Your task to perform on an android device: Go to ESPN.com Image 0: 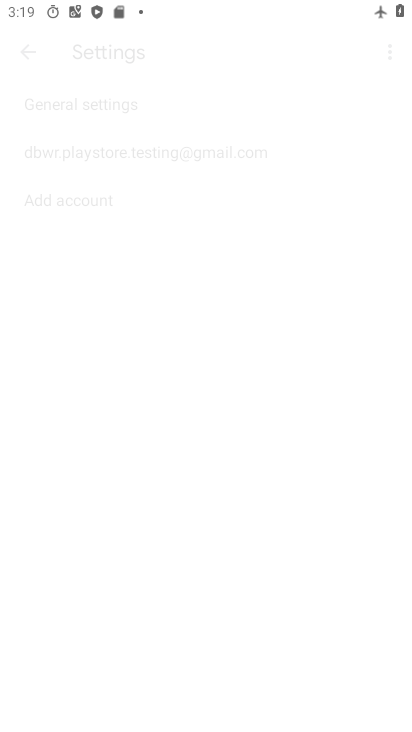
Step 0: drag from (339, 572) to (352, 82)
Your task to perform on an android device: Go to ESPN.com Image 1: 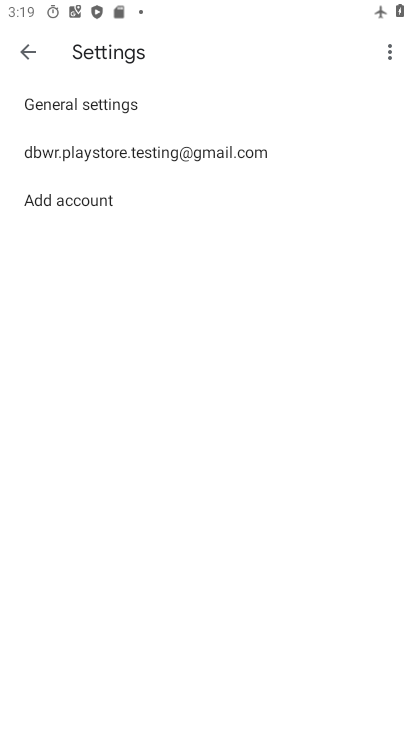
Step 1: press home button
Your task to perform on an android device: Go to ESPN.com Image 2: 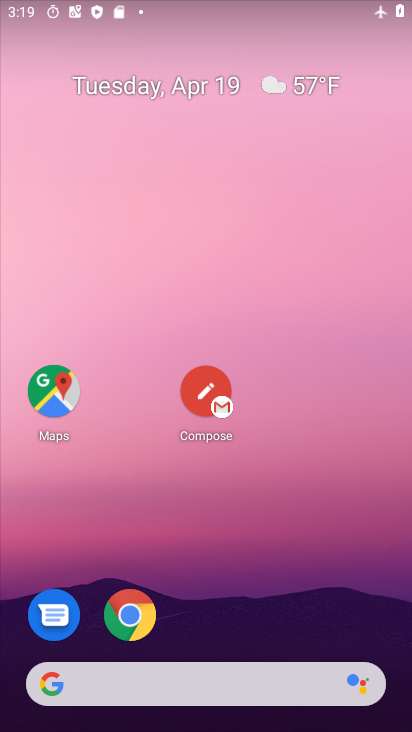
Step 2: drag from (278, 623) to (297, 208)
Your task to perform on an android device: Go to ESPN.com Image 3: 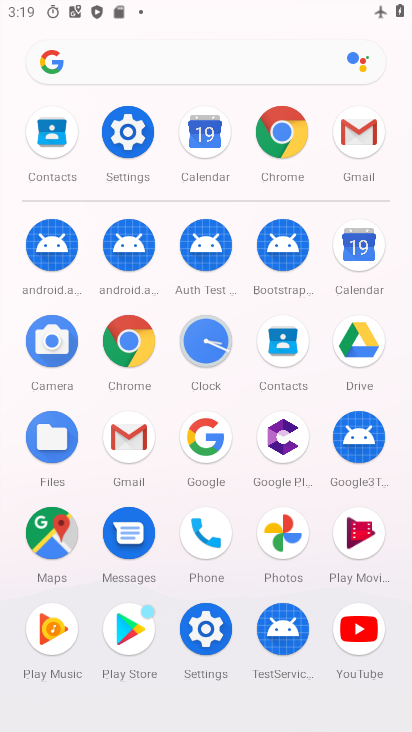
Step 3: click (126, 341)
Your task to perform on an android device: Go to ESPN.com Image 4: 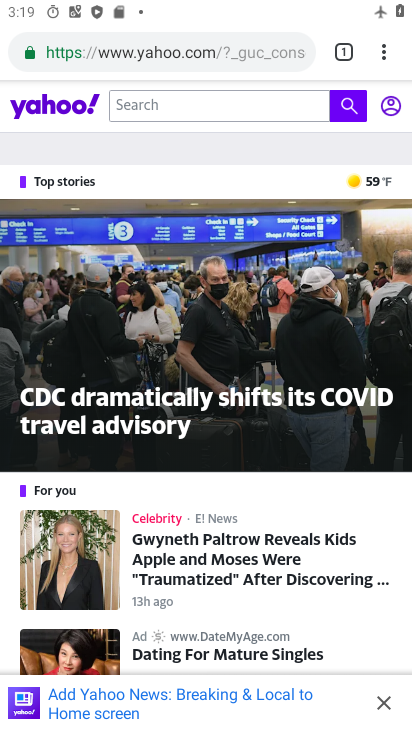
Step 4: click (217, 51)
Your task to perform on an android device: Go to ESPN.com Image 5: 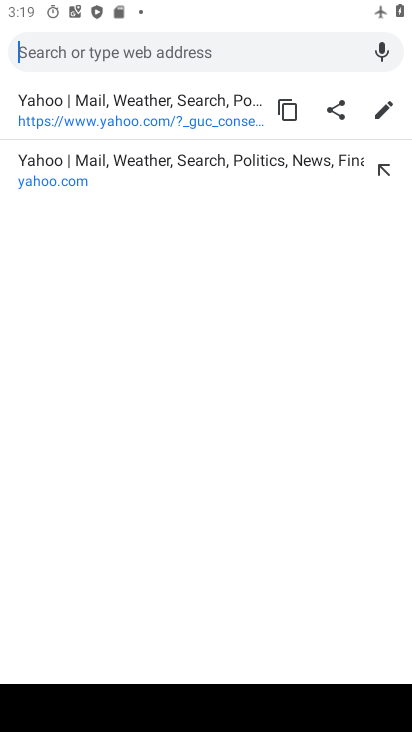
Step 5: type "espn.com"
Your task to perform on an android device: Go to ESPN.com Image 6: 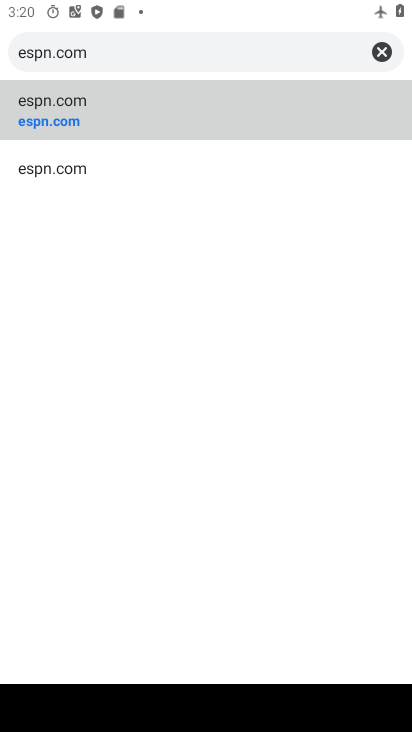
Step 6: click (241, 113)
Your task to perform on an android device: Go to ESPN.com Image 7: 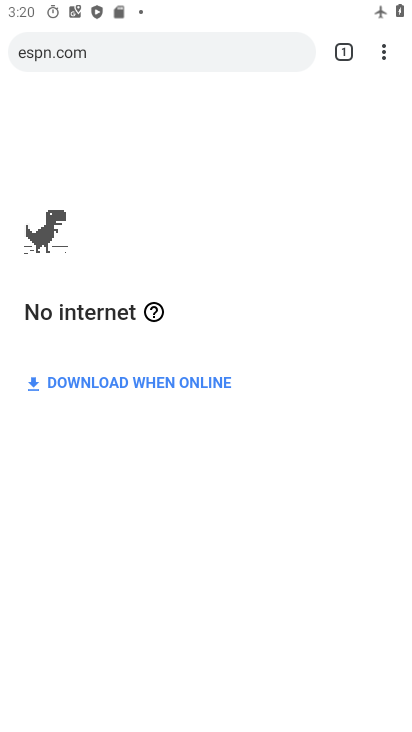
Step 7: task complete